Your task to perform on an android device: Go to internet settings Image 0: 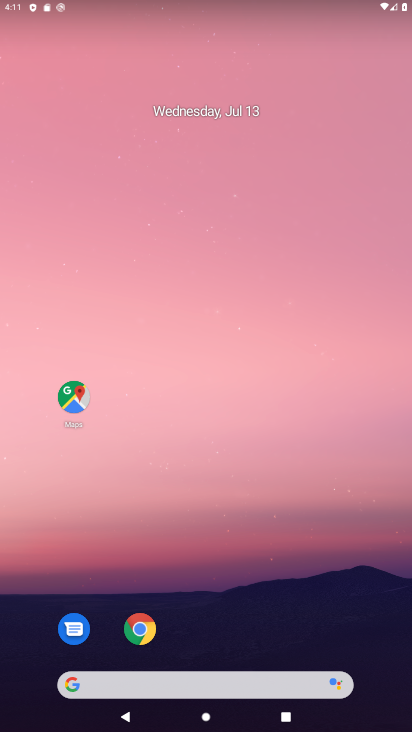
Step 0: drag from (246, 643) to (279, 53)
Your task to perform on an android device: Go to internet settings Image 1: 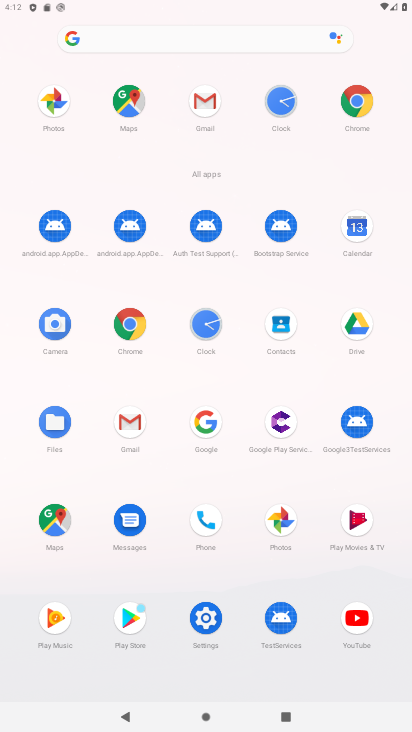
Step 1: click (204, 624)
Your task to perform on an android device: Go to internet settings Image 2: 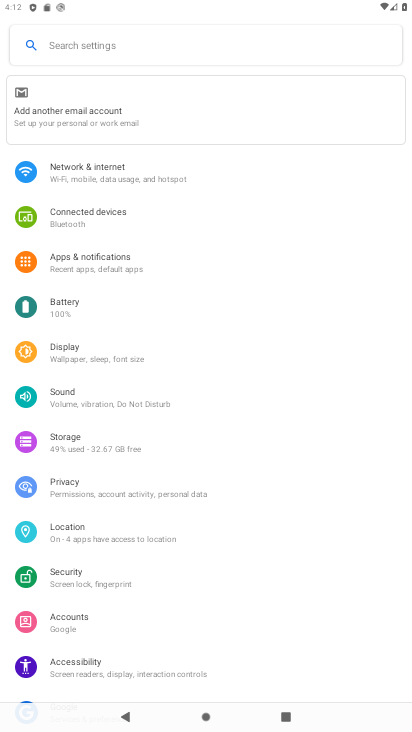
Step 2: click (78, 173)
Your task to perform on an android device: Go to internet settings Image 3: 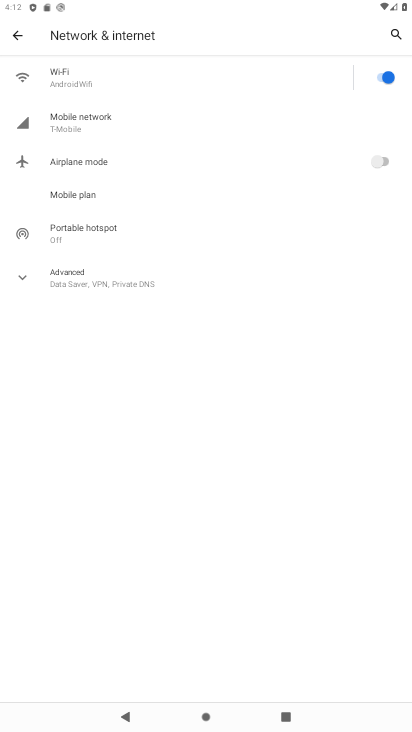
Step 3: task complete